Your task to perform on an android device: toggle data saver in the chrome app Image 0: 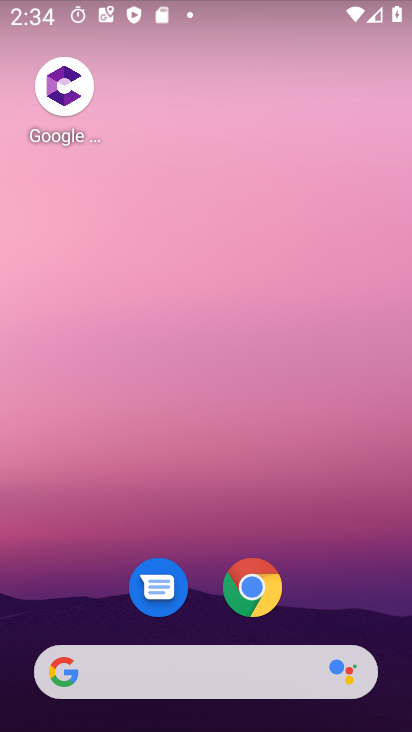
Step 0: drag from (334, 548) to (275, 53)
Your task to perform on an android device: toggle data saver in the chrome app Image 1: 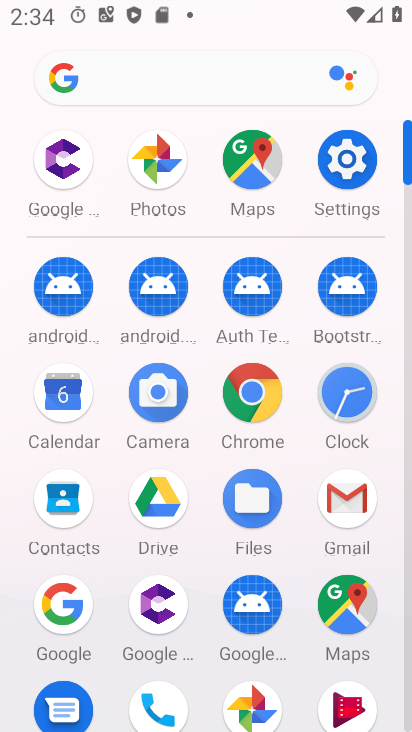
Step 1: drag from (27, 630) to (24, 280)
Your task to perform on an android device: toggle data saver in the chrome app Image 2: 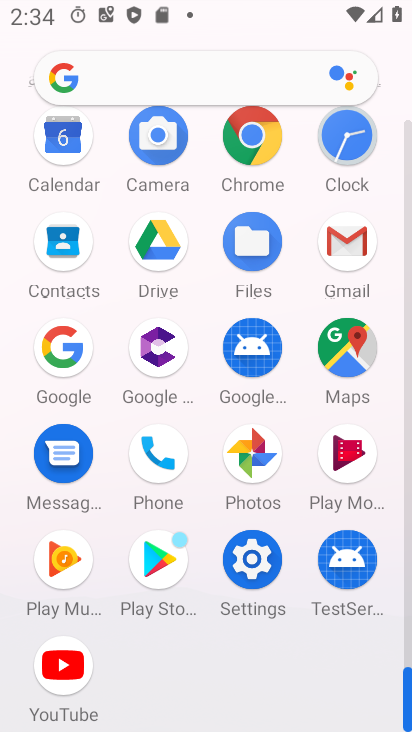
Step 2: click (253, 132)
Your task to perform on an android device: toggle data saver in the chrome app Image 3: 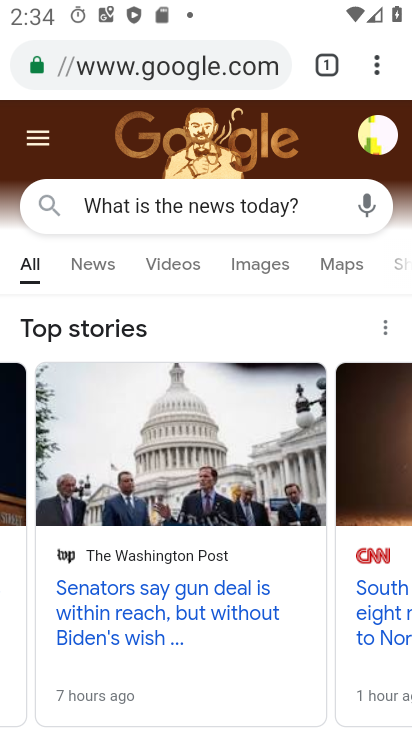
Step 3: drag from (375, 60) to (233, 632)
Your task to perform on an android device: toggle data saver in the chrome app Image 4: 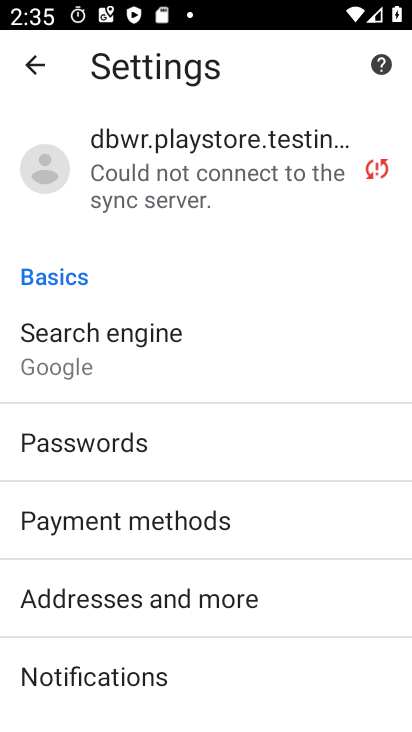
Step 4: drag from (231, 552) to (270, 210)
Your task to perform on an android device: toggle data saver in the chrome app Image 5: 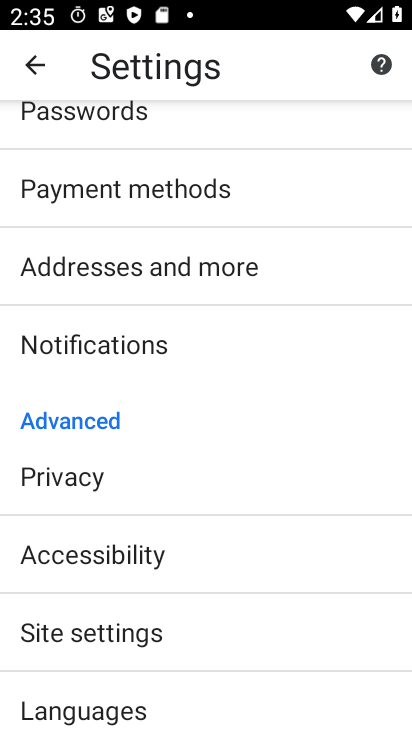
Step 5: drag from (225, 565) to (254, 171)
Your task to perform on an android device: toggle data saver in the chrome app Image 6: 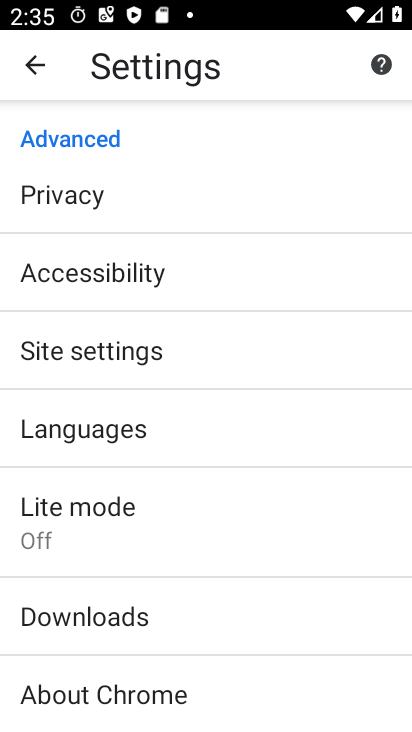
Step 6: drag from (254, 529) to (271, 175)
Your task to perform on an android device: toggle data saver in the chrome app Image 7: 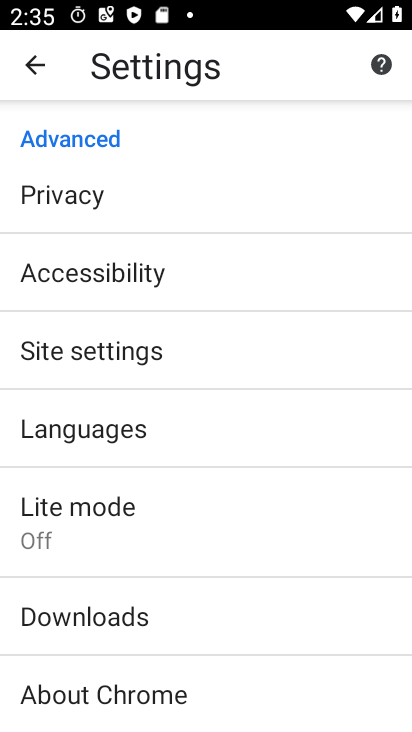
Step 7: click (170, 498)
Your task to perform on an android device: toggle data saver in the chrome app Image 8: 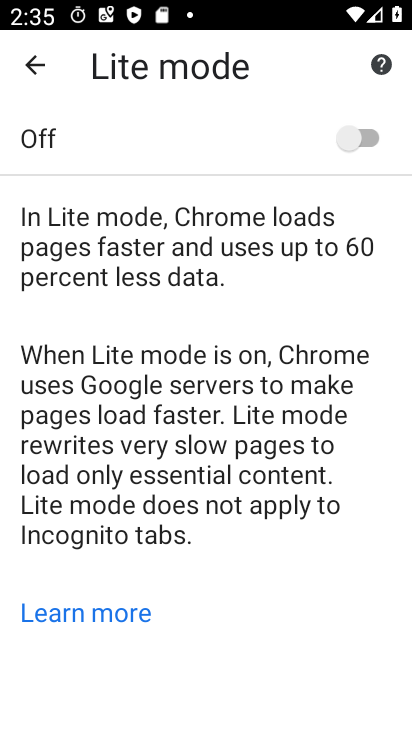
Step 8: click (351, 133)
Your task to perform on an android device: toggle data saver in the chrome app Image 9: 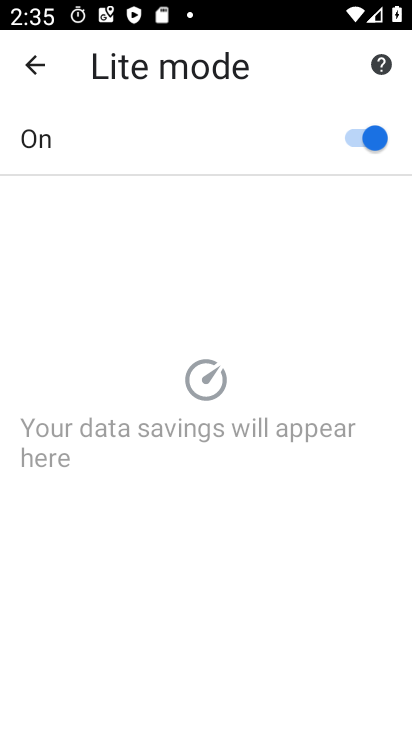
Step 9: task complete